Your task to perform on an android device: Go to settings Image 0: 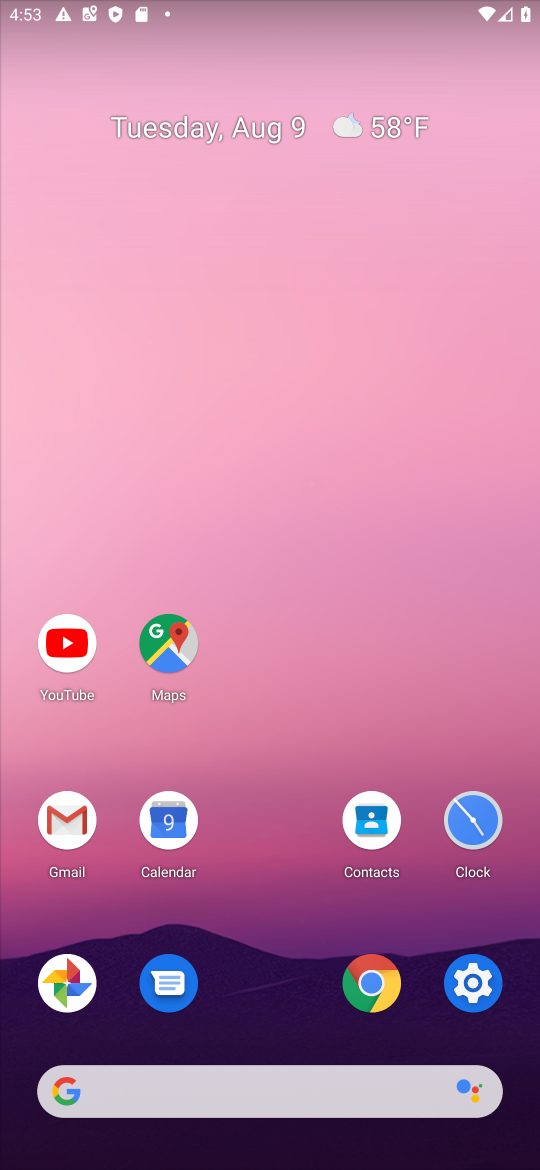
Step 0: click (475, 979)
Your task to perform on an android device: Go to settings Image 1: 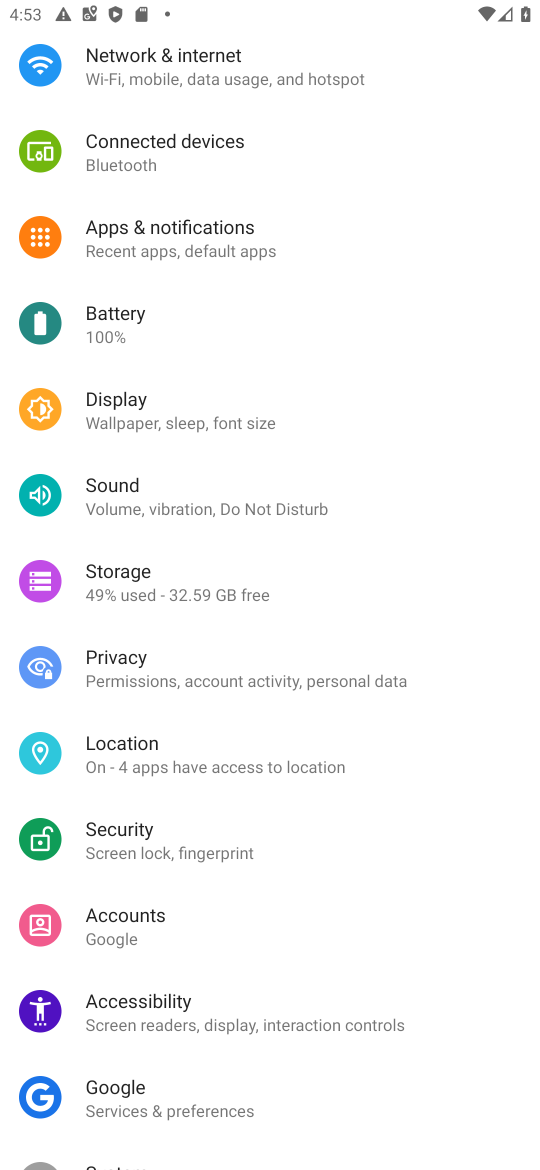
Step 1: task complete